Your task to perform on an android device: What's the weather going to be tomorrow? Image 0: 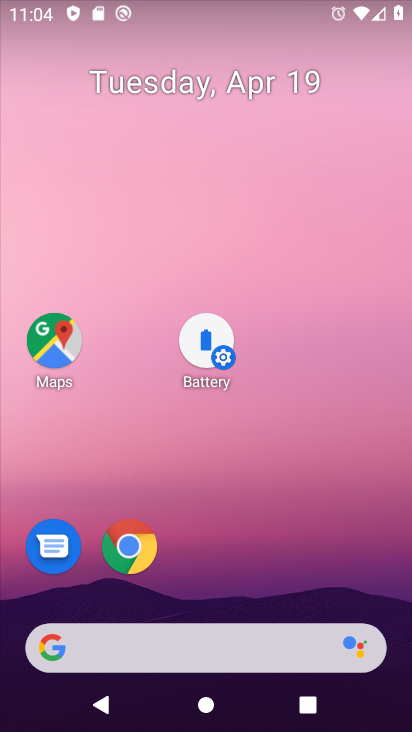
Step 0: drag from (245, 574) to (303, 145)
Your task to perform on an android device: What's the weather going to be tomorrow? Image 1: 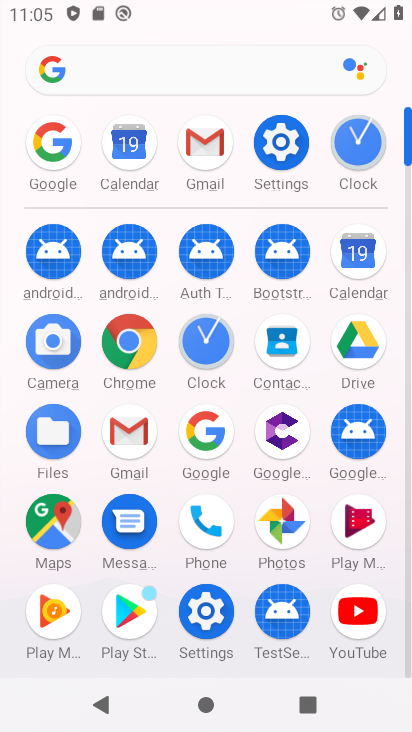
Step 1: click (56, 137)
Your task to perform on an android device: What's the weather going to be tomorrow? Image 2: 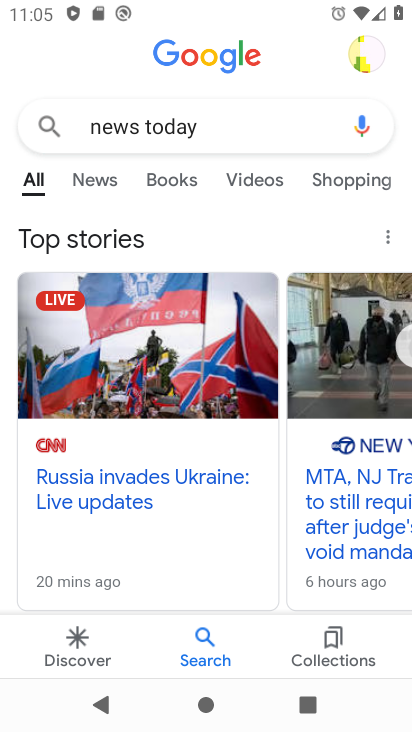
Step 2: click (226, 118)
Your task to perform on an android device: What's the weather going to be tomorrow? Image 3: 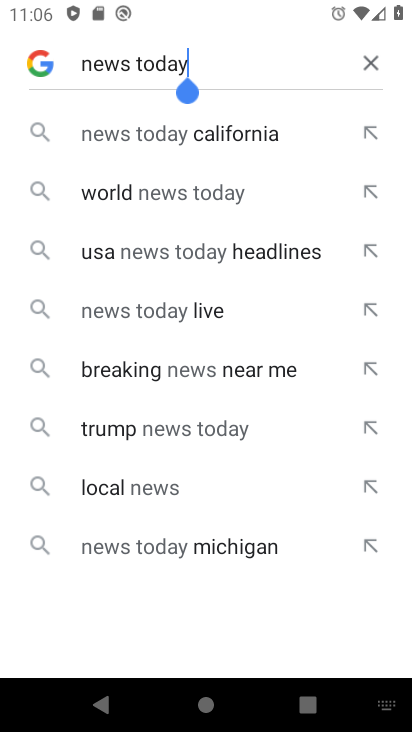
Step 3: click (363, 61)
Your task to perform on an android device: What's the weather going to be tomorrow? Image 4: 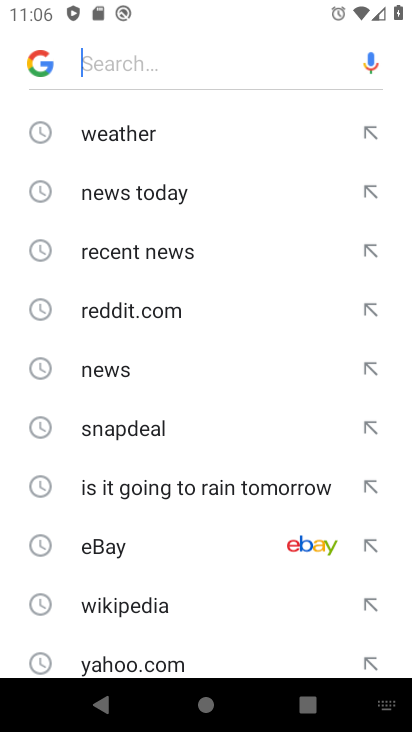
Step 4: click (178, 122)
Your task to perform on an android device: What's the weather going to be tomorrow? Image 5: 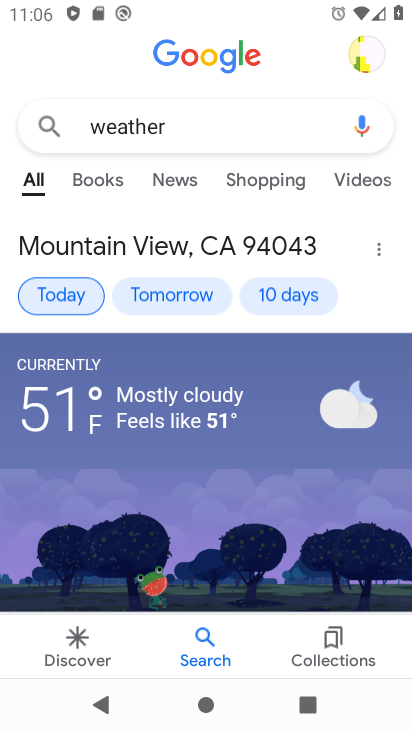
Step 5: click (178, 287)
Your task to perform on an android device: What's the weather going to be tomorrow? Image 6: 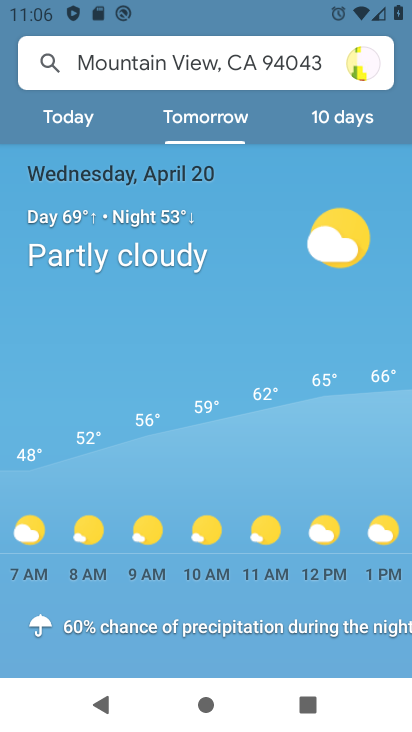
Step 6: task complete